Your task to perform on an android device: Open the calendar app, open the side menu, and click the "Day" option Image 0: 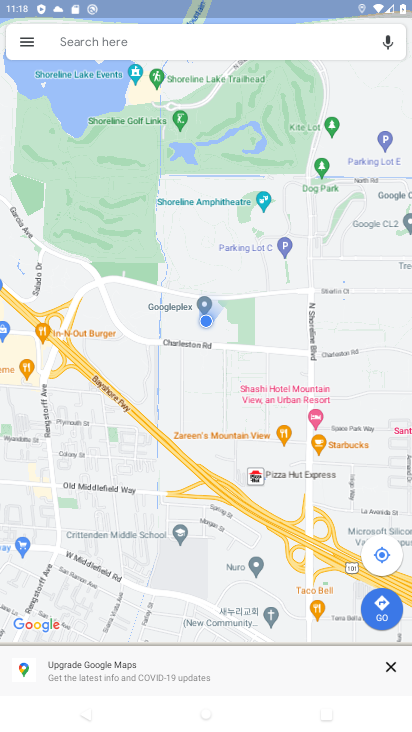
Step 0: press home button
Your task to perform on an android device: Open the calendar app, open the side menu, and click the "Day" option Image 1: 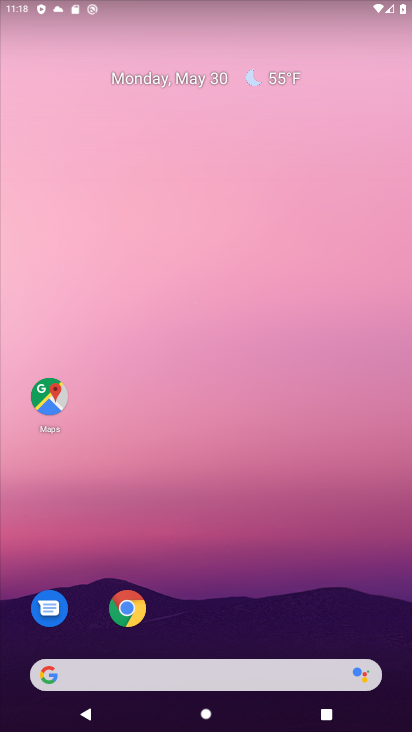
Step 1: drag from (324, 610) to (282, 0)
Your task to perform on an android device: Open the calendar app, open the side menu, and click the "Day" option Image 2: 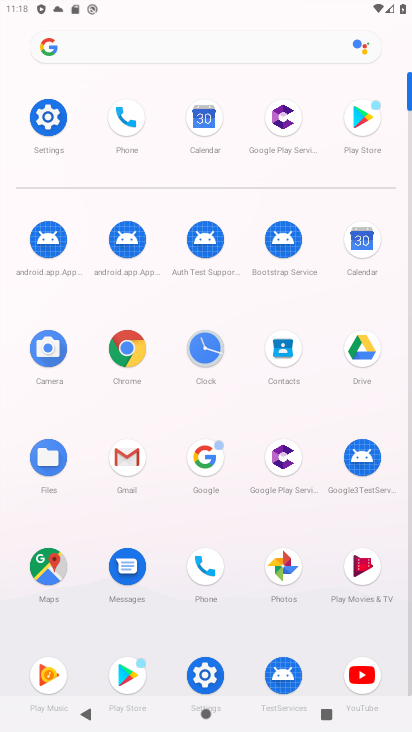
Step 2: click (206, 120)
Your task to perform on an android device: Open the calendar app, open the side menu, and click the "Day" option Image 3: 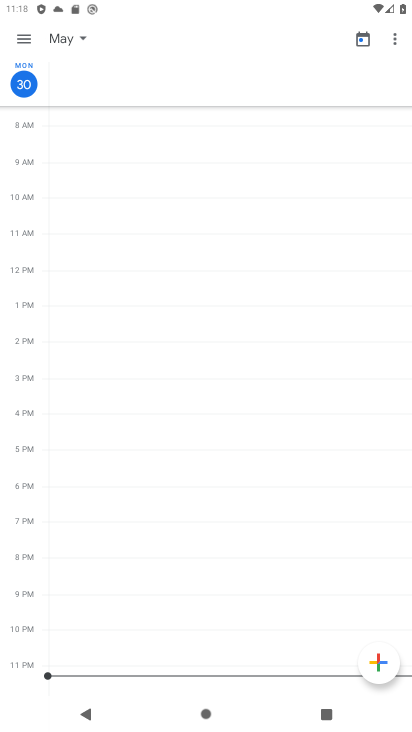
Step 3: click (22, 43)
Your task to perform on an android device: Open the calendar app, open the side menu, and click the "Day" option Image 4: 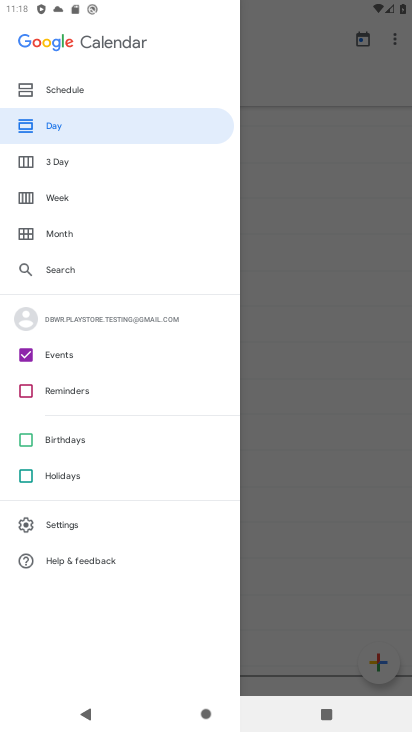
Step 4: click (81, 118)
Your task to perform on an android device: Open the calendar app, open the side menu, and click the "Day" option Image 5: 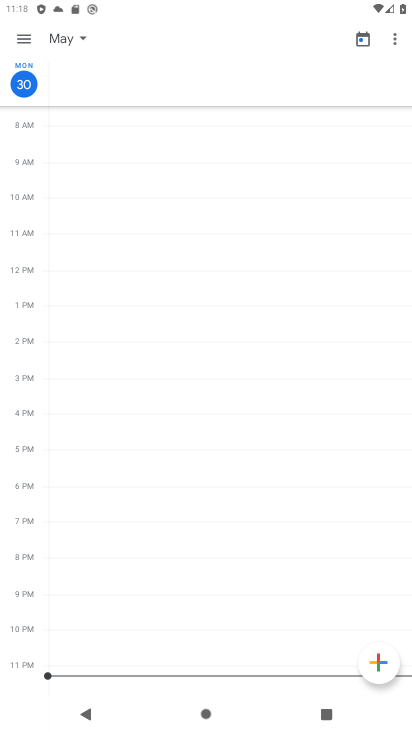
Step 5: task complete